Your task to perform on an android device: Open the calendar and show me this week's events? Image 0: 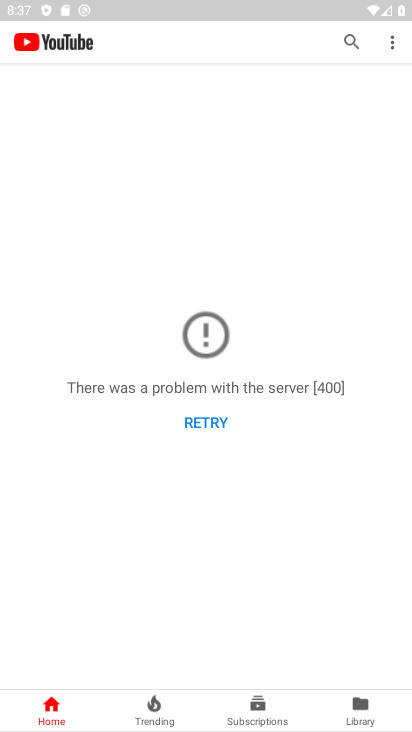
Step 0: press home button
Your task to perform on an android device: Open the calendar and show me this week's events? Image 1: 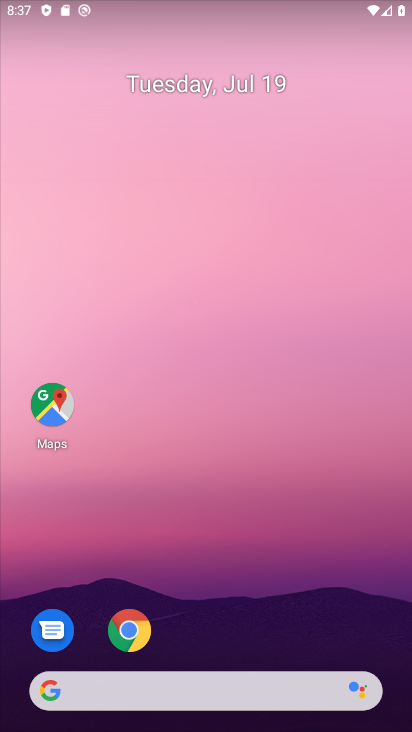
Step 1: drag from (361, 634) to (317, 188)
Your task to perform on an android device: Open the calendar and show me this week's events? Image 2: 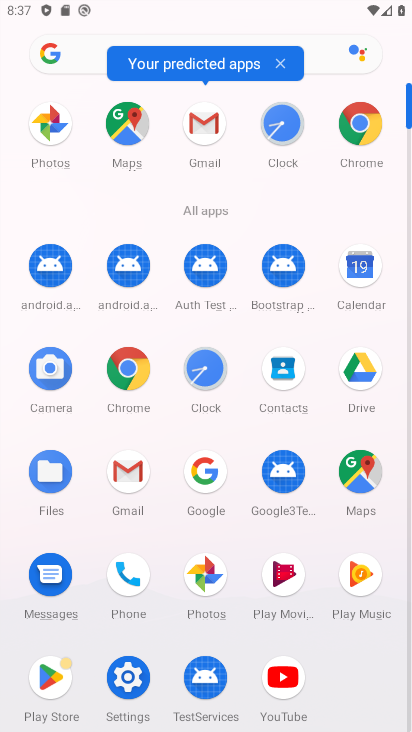
Step 2: click (369, 284)
Your task to perform on an android device: Open the calendar and show me this week's events? Image 3: 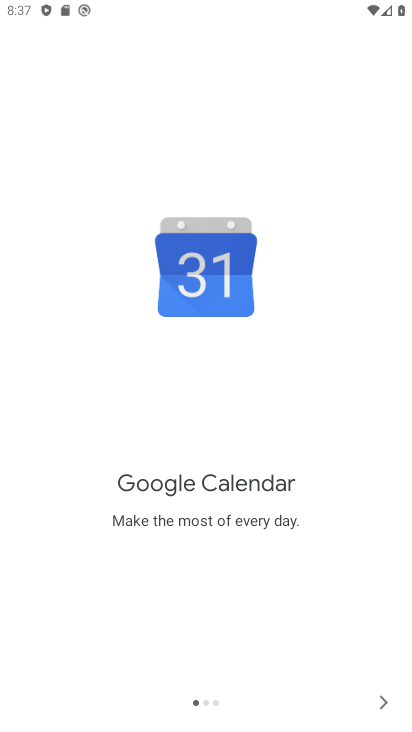
Step 3: click (384, 708)
Your task to perform on an android device: Open the calendar and show me this week's events? Image 4: 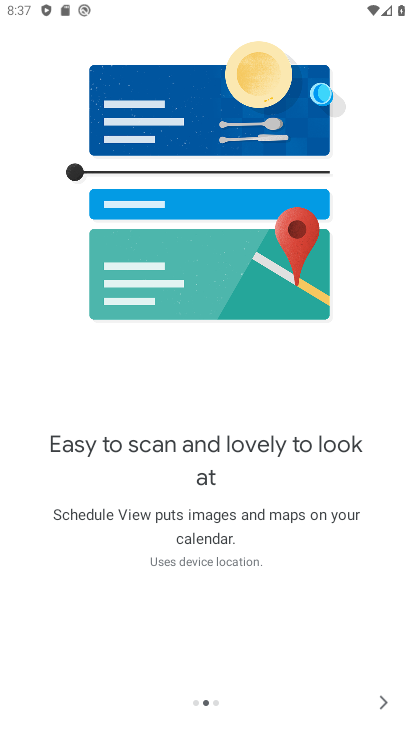
Step 4: click (384, 708)
Your task to perform on an android device: Open the calendar and show me this week's events? Image 5: 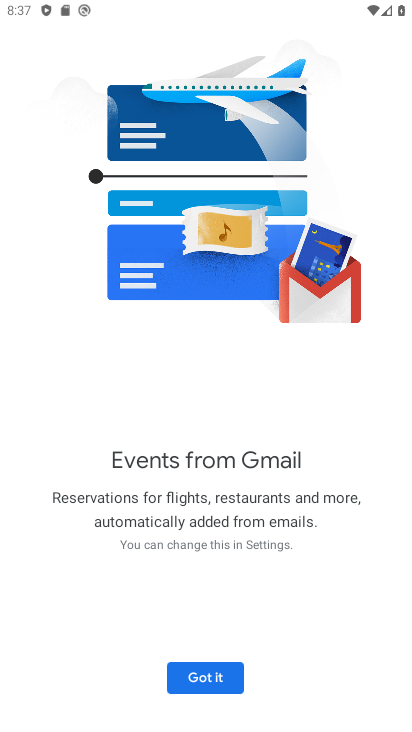
Step 5: click (221, 680)
Your task to perform on an android device: Open the calendar and show me this week's events? Image 6: 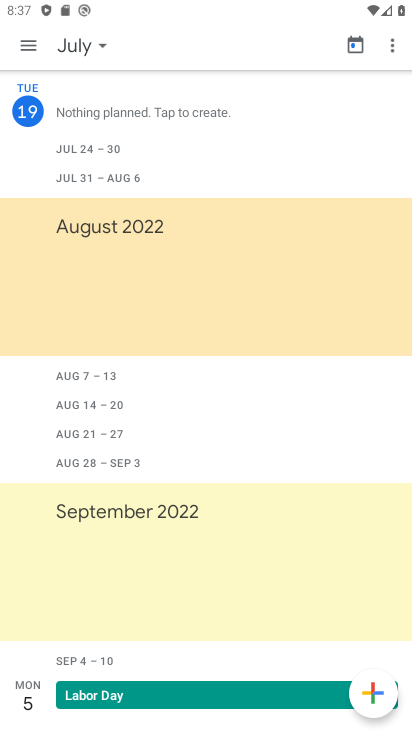
Step 6: click (30, 48)
Your task to perform on an android device: Open the calendar and show me this week's events? Image 7: 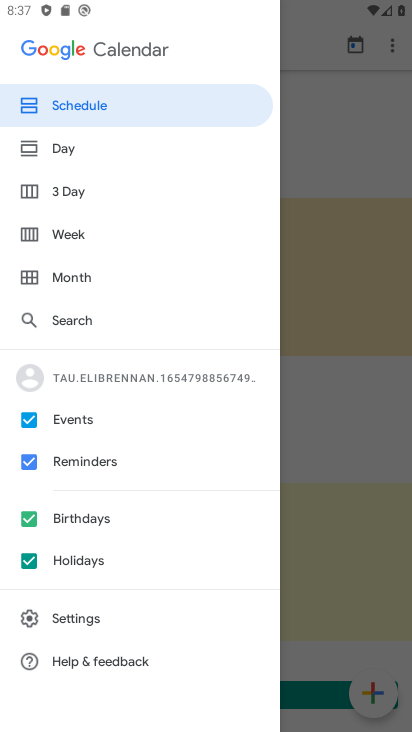
Step 7: click (26, 562)
Your task to perform on an android device: Open the calendar and show me this week's events? Image 8: 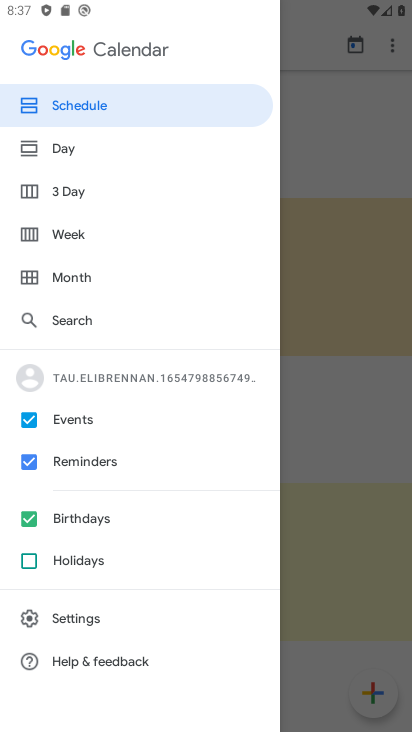
Step 8: click (30, 518)
Your task to perform on an android device: Open the calendar and show me this week's events? Image 9: 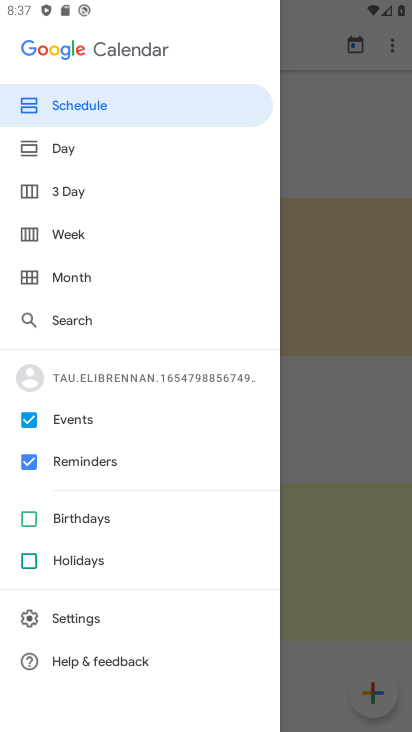
Step 9: click (28, 462)
Your task to perform on an android device: Open the calendar and show me this week's events? Image 10: 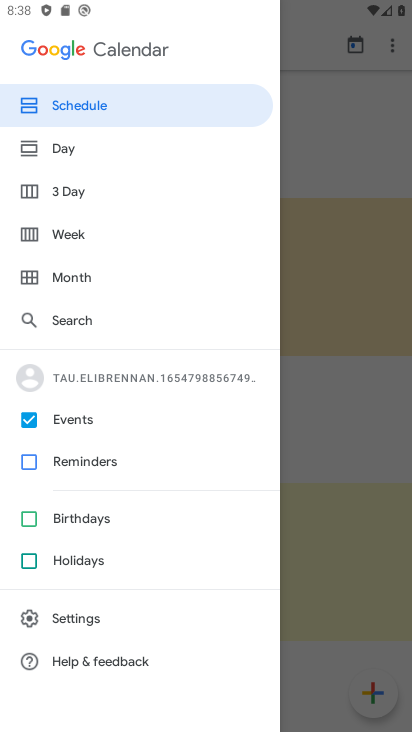
Step 10: click (82, 230)
Your task to perform on an android device: Open the calendar and show me this week's events? Image 11: 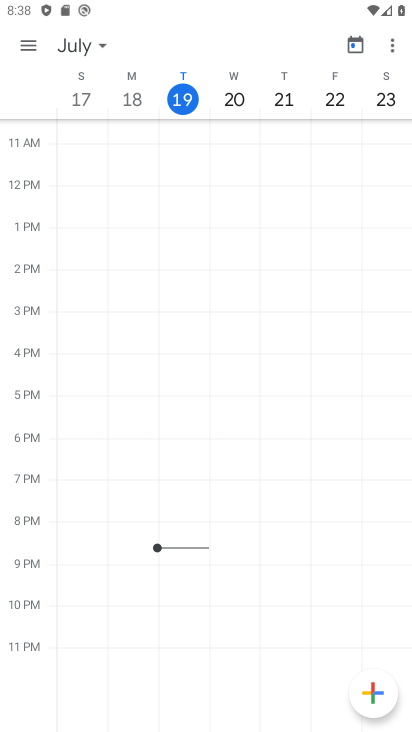
Step 11: task complete